Your task to perform on an android device: Open the phone app and click the voicemail tab. Image 0: 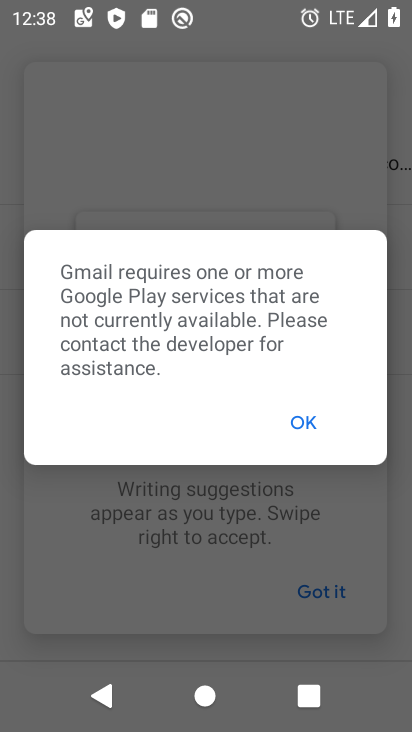
Step 0: drag from (254, 542) to (302, 414)
Your task to perform on an android device: Open the phone app and click the voicemail tab. Image 1: 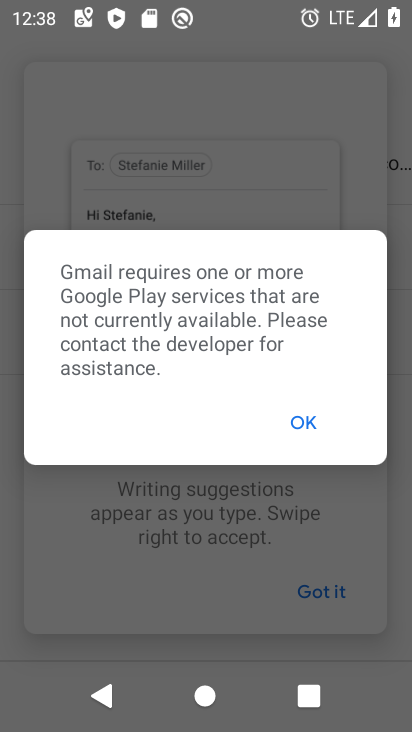
Step 1: press home button
Your task to perform on an android device: Open the phone app and click the voicemail tab. Image 2: 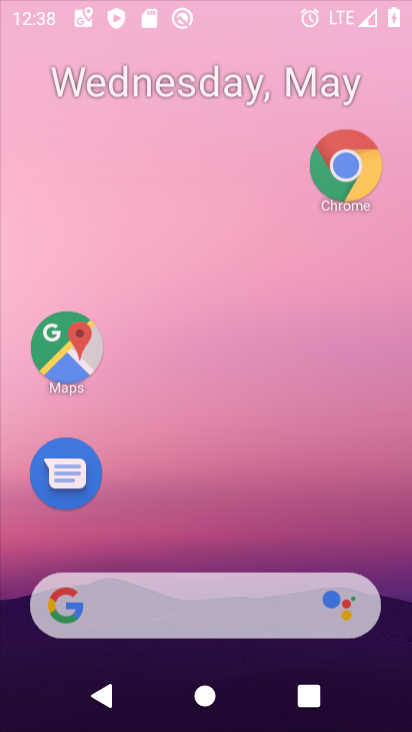
Step 2: drag from (234, 611) to (396, 332)
Your task to perform on an android device: Open the phone app and click the voicemail tab. Image 3: 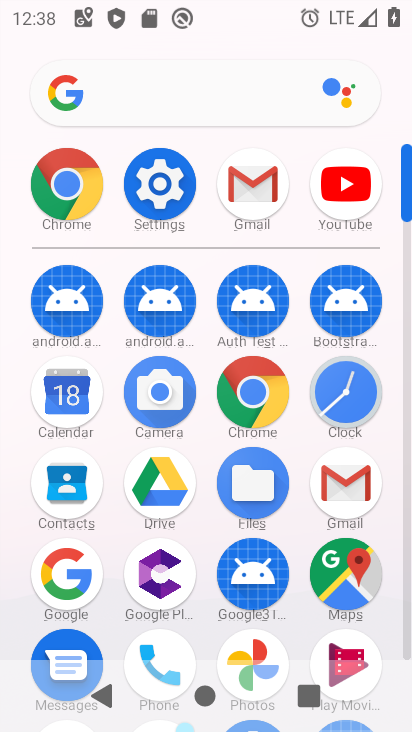
Step 3: click (163, 639)
Your task to perform on an android device: Open the phone app and click the voicemail tab. Image 4: 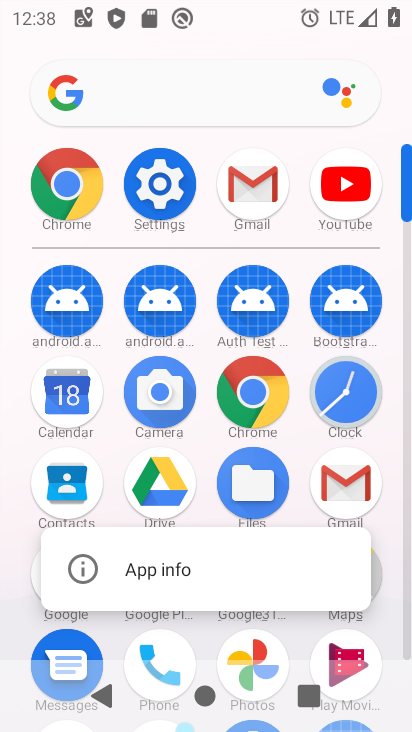
Step 4: click (174, 562)
Your task to perform on an android device: Open the phone app and click the voicemail tab. Image 5: 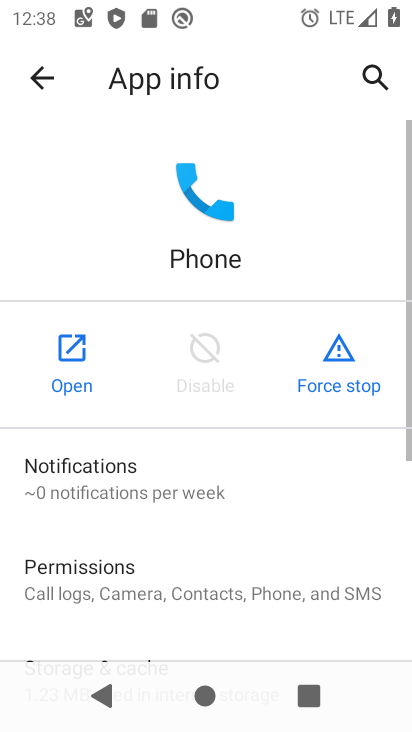
Step 5: click (69, 366)
Your task to perform on an android device: Open the phone app and click the voicemail tab. Image 6: 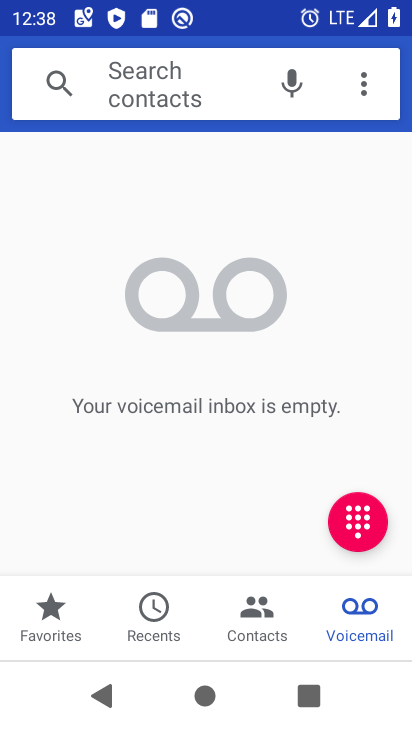
Step 6: click (349, 620)
Your task to perform on an android device: Open the phone app and click the voicemail tab. Image 7: 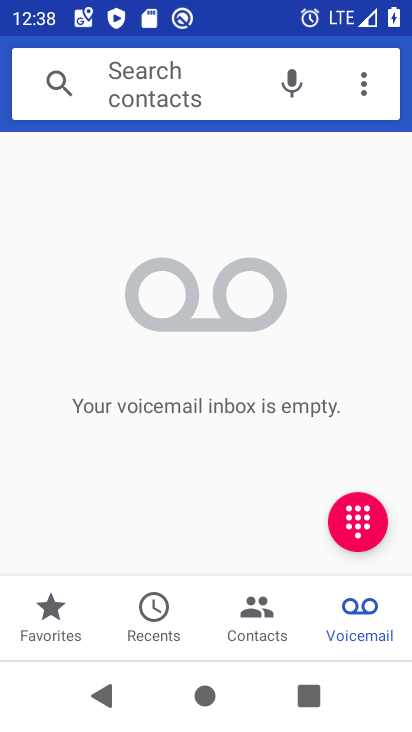
Step 7: task complete